Your task to perform on an android device: Go to location settings Image 0: 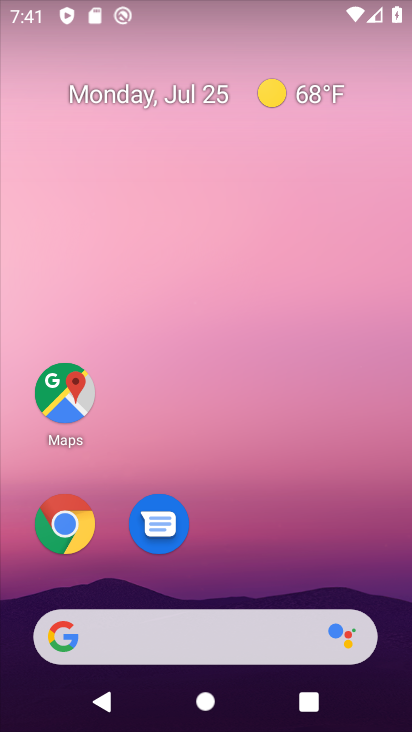
Step 0: drag from (254, 543) to (246, 8)
Your task to perform on an android device: Go to location settings Image 1: 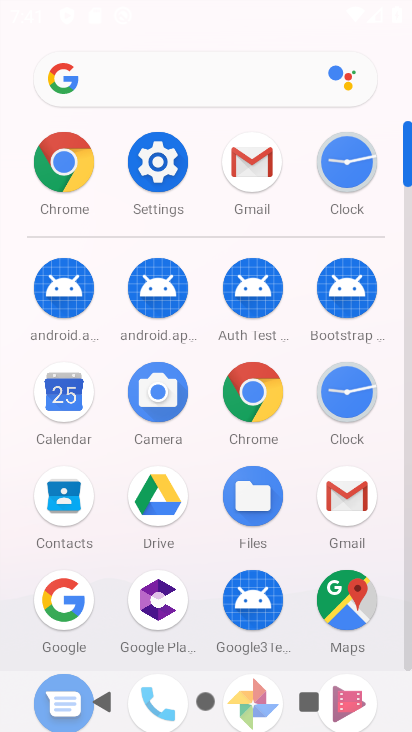
Step 1: click (157, 163)
Your task to perform on an android device: Go to location settings Image 2: 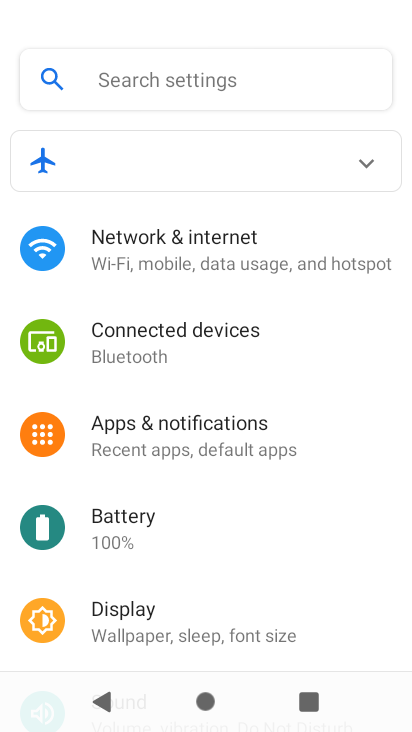
Step 2: drag from (188, 578) to (196, 69)
Your task to perform on an android device: Go to location settings Image 3: 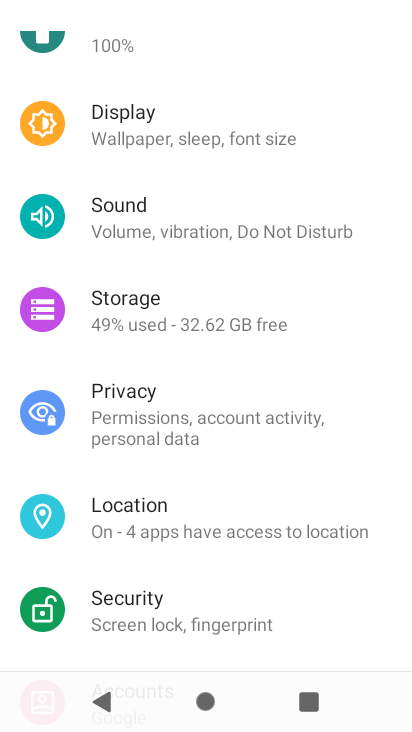
Step 3: click (195, 519)
Your task to perform on an android device: Go to location settings Image 4: 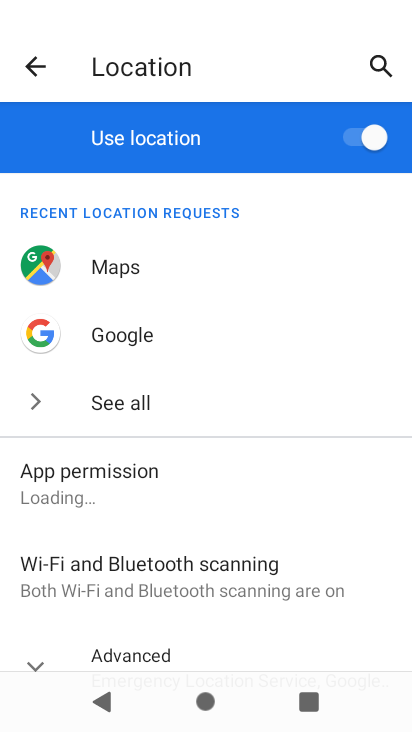
Step 4: task complete